Your task to perform on an android device: What's the weather going to be this weekend? Image 0: 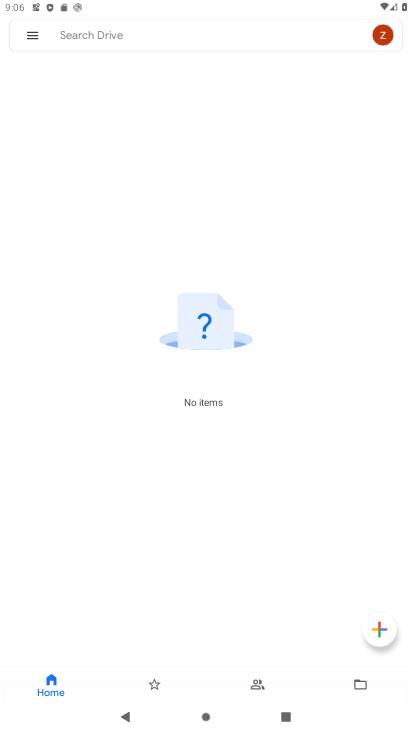
Step 0: press home button
Your task to perform on an android device: What's the weather going to be this weekend? Image 1: 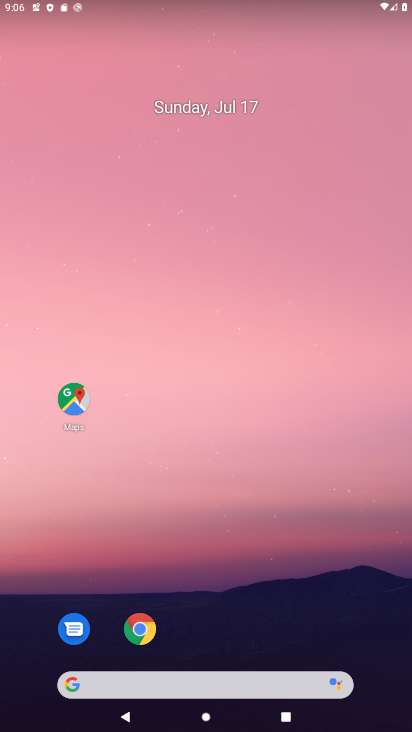
Step 1: click (163, 679)
Your task to perform on an android device: What's the weather going to be this weekend? Image 2: 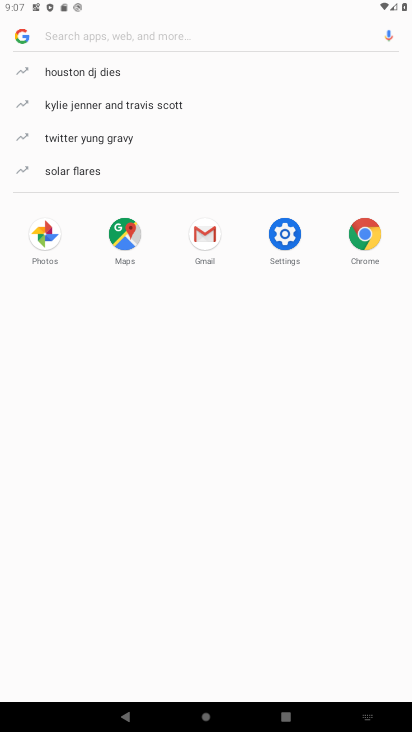
Step 2: type "weather"
Your task to perform on an android device: What's the weather going to be this weekend? Image 3: 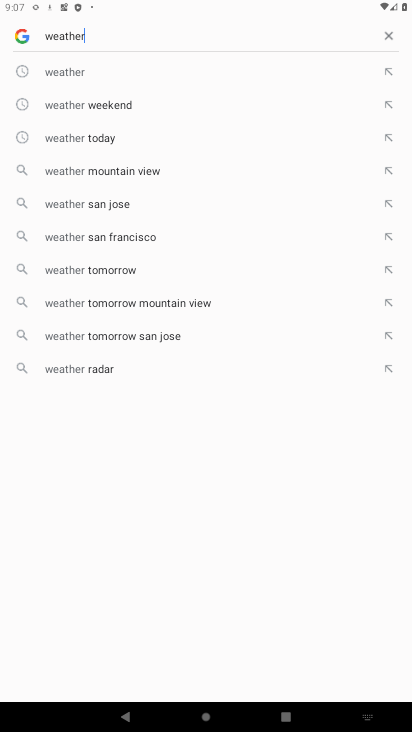
Step 3: click (57, 70)
Your task to perform on an android device: What's the weather going to be this weekend? Image 4: 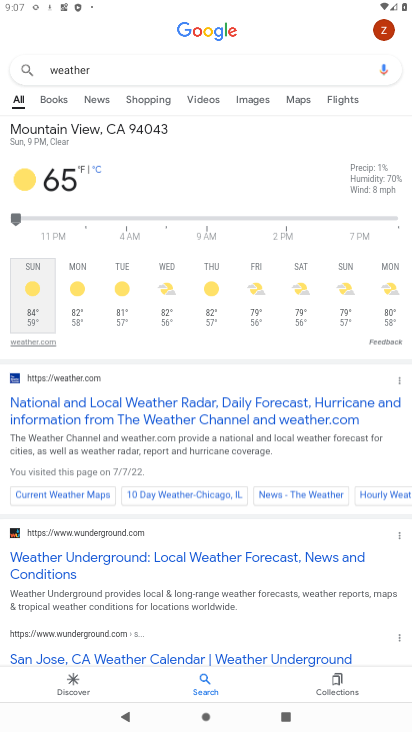
Step 4: task complete